Your task to perform on an android device: delete a single message in the gmail app Image 0: 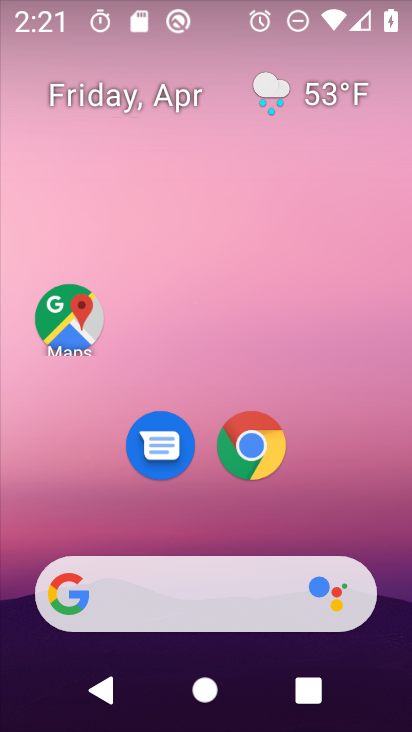
Step 0: drag from (348, 490) to (351, 119)
Your task to perform on an android device: delete a single message in the gmail app Image 1: 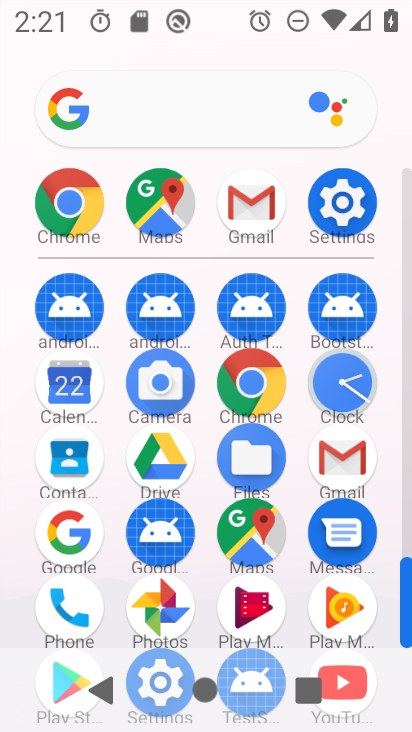
Step 1: click (352, 456)
Your task to perform on an android device: delete a single message in the gmail app Image 2: 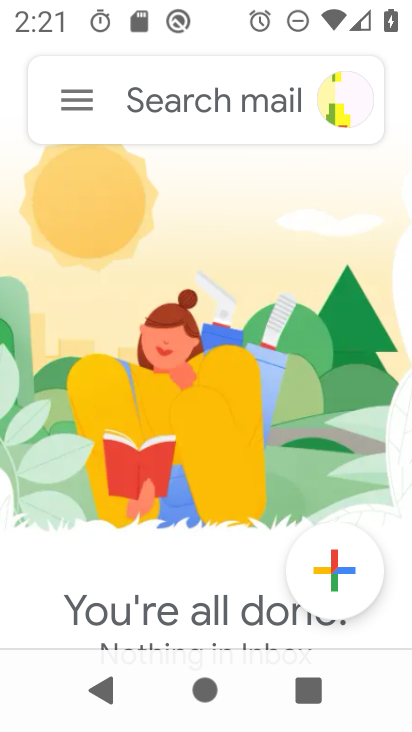
Step 2: click (74, 104)
Your task to perform on an android device: delete a single message in the gmail app Image 3: 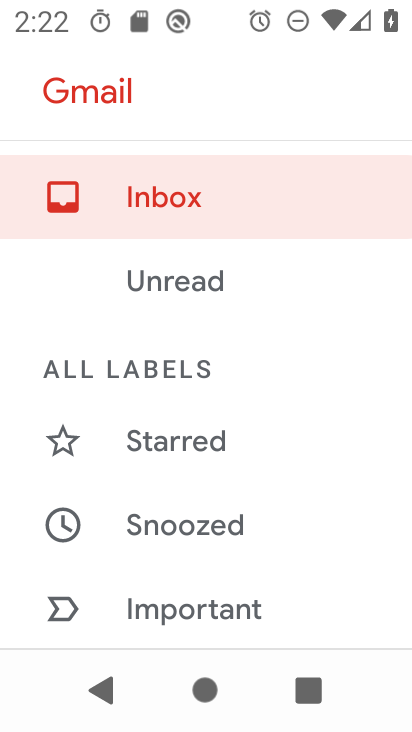
Step 3: drag from (324, 530) to (354, 367)
Your task to perform on an android device: delete a single message in the gmail app Image 4: 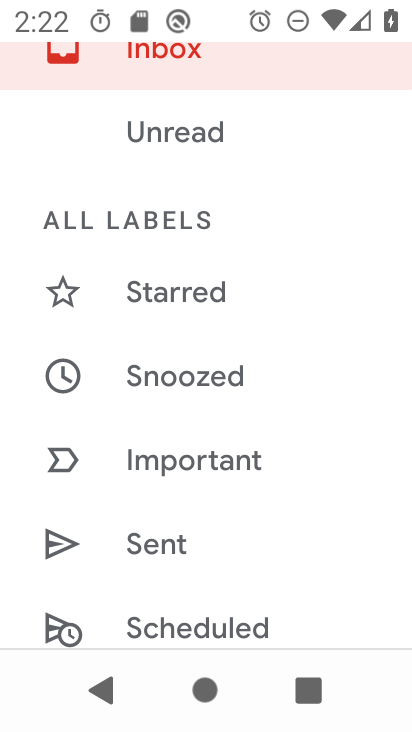
Step 4: drag from (327, 562) to (341, 368)
Your task to perform on an android device: delete a single message in the gmail app Image 5: 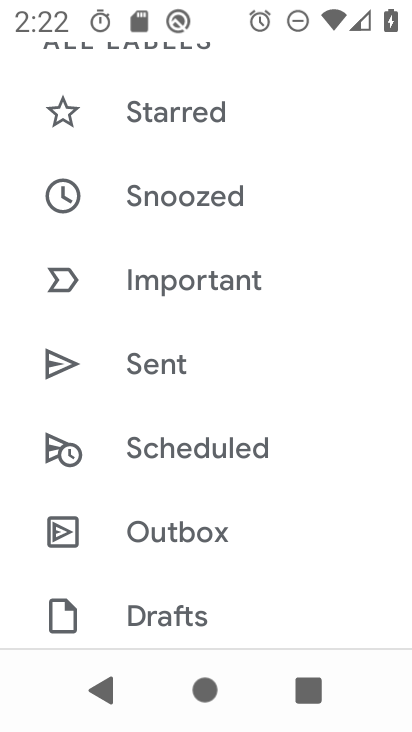
Step 5: drag from (333, 594) to (368, 304)
Your task to perform on an android device: delete a single message in the gmail app Image 6: 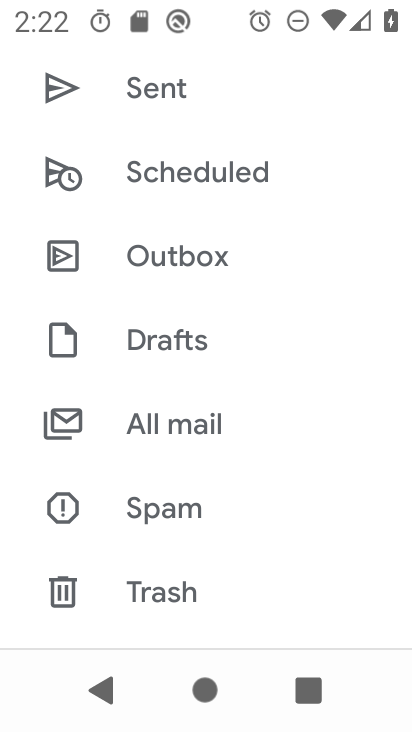
Step 6: drag from (359, 256) to (345, 466)
Your task to perform on an android device: delete a single message in the gmail app Image 7: 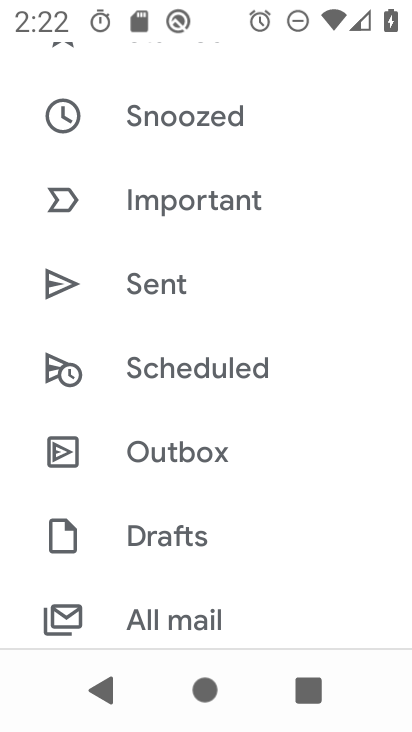
Step 7: drag from (358, 254) to (374, 464)
Your task to perform on an android device: delete a single message in the gmail app Image 8: 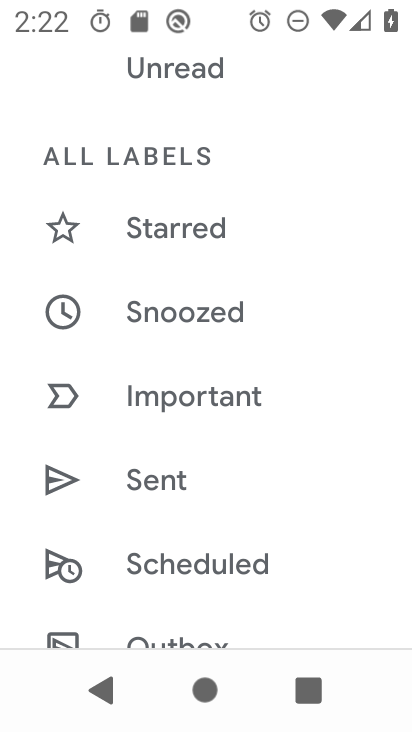
Step 8: drag from (359, 292) to (350, 469)
Your task to perform on an android device: delete a single message in the gmail app Image 9: 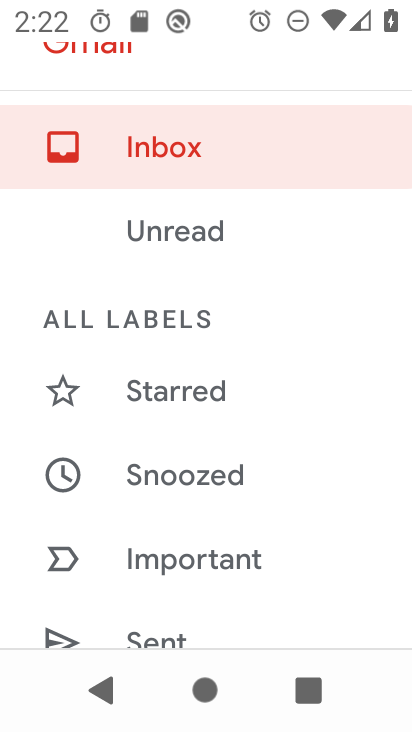
Step 9: click (239, 169)
Your task to perform on an android device: delete a single message in the gmail app Image 10: 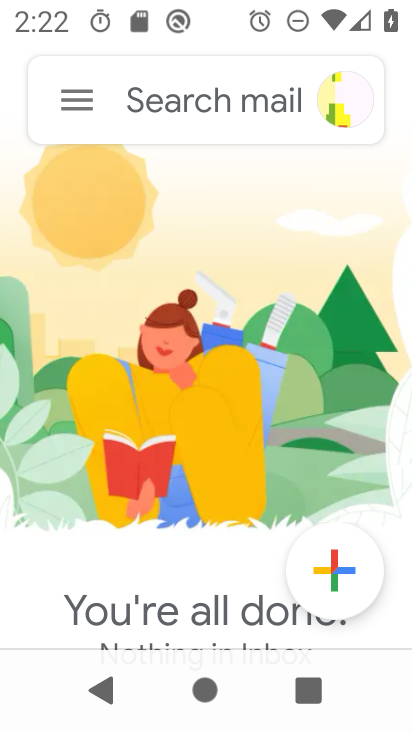
Step 10: task complete